Your task to perform on an android device: turn off airplane mode Image 0: 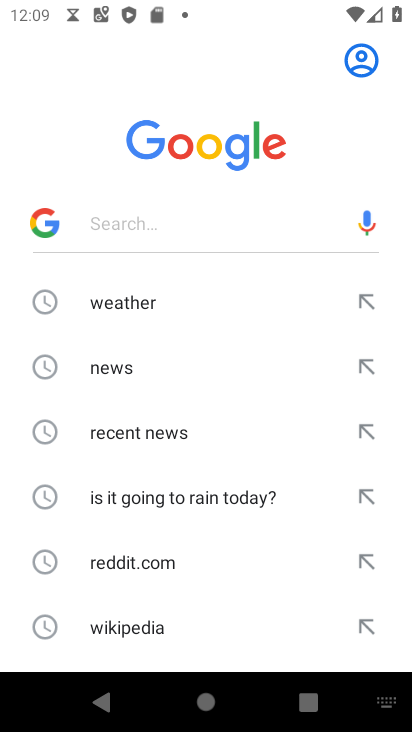
Step 0: press home button
Your task to perform on an android device: turn off airplane mode Image 1: 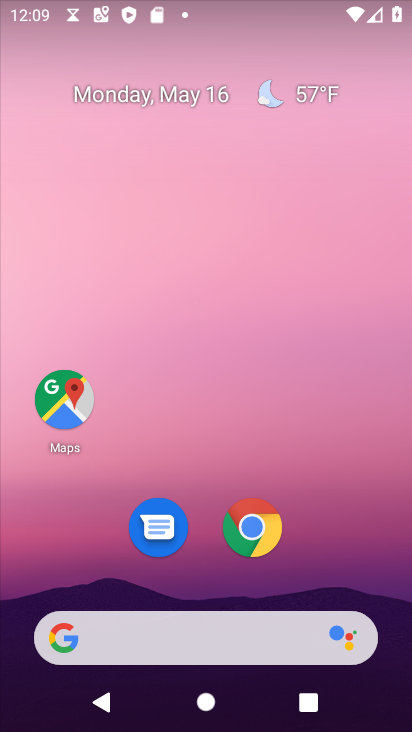
Step 1: drag from (195, 548) to (216, 4)
Your task to perform on an android device: turn off airplane mode Image 2: 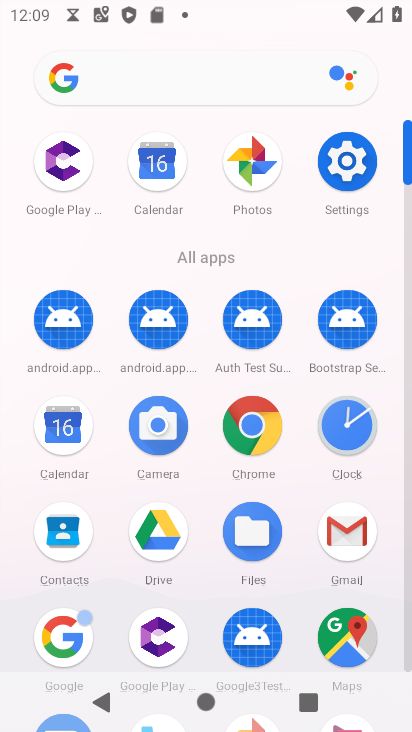
Step 2: click (352, 176)
Your task to perform on an android device: turn off airplane mode Image 3: 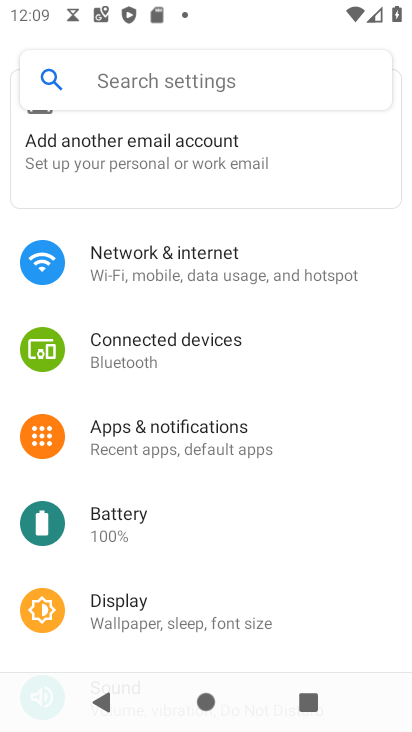
Step 3: click (178, 266)
Your task to perform on an android device: turn off airplane mode Image 4: 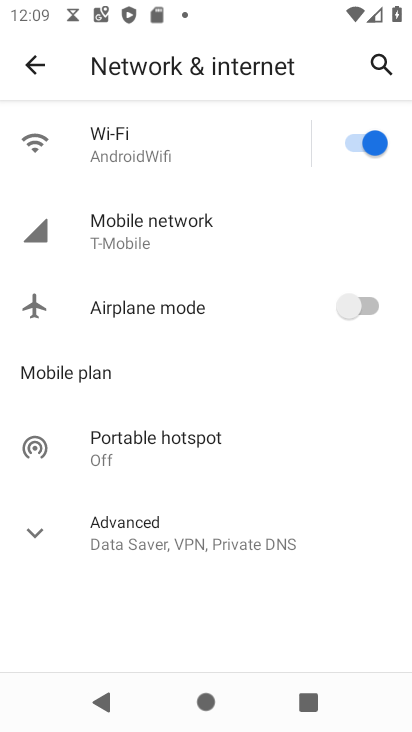
Step 4: task complete